Your task to perform on an android device: change notification settings in the gmail app Image 0: 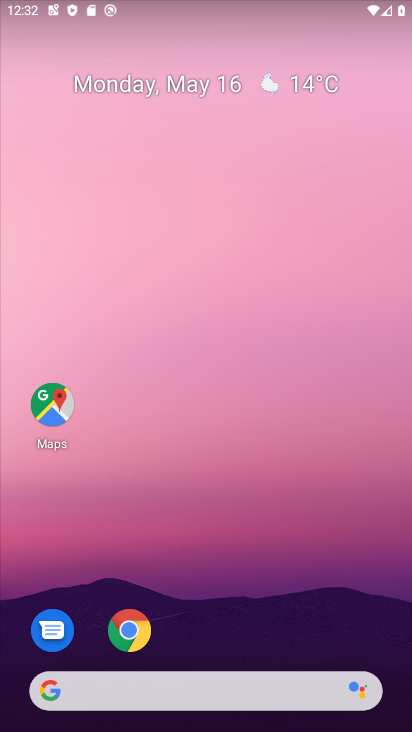
Step 0: drag from (265, 608) to (263, 96)
Your task to perform on an android device: change notification settings in the gmail app Image 1: 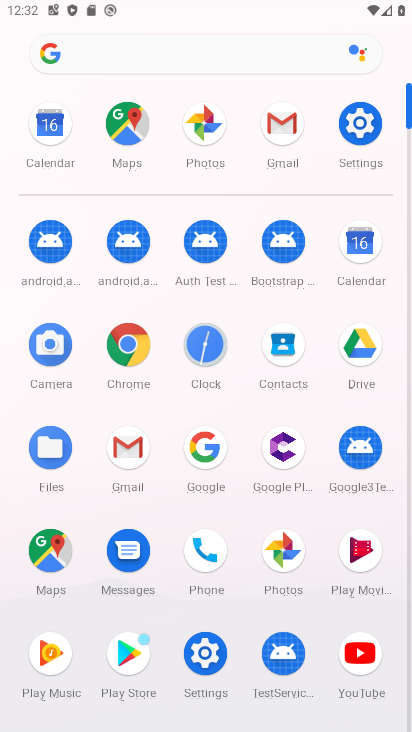
Step 1: click (122, 448)
Your task to perform on an android device: change notification settings in the gmail app Image 2: 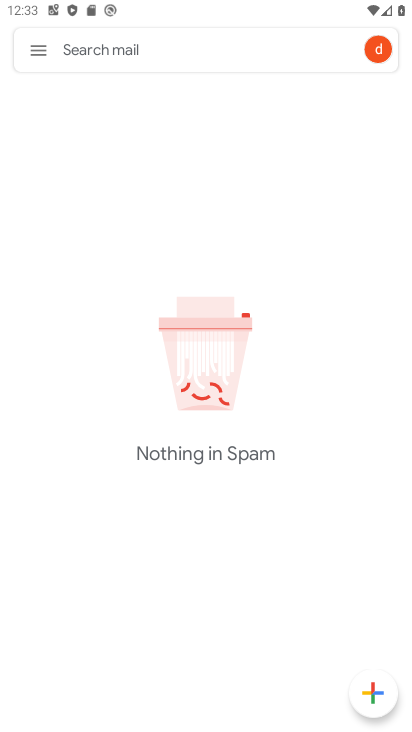
Step 2: click (40, 46)
Your task to perform on an android device: change notification settings in the gmail app Image 3: 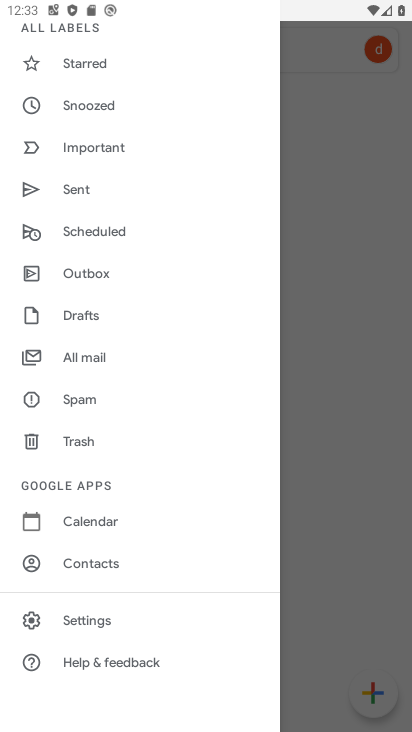
Step 3: click (118, 617)
Your task to perform on an android device: change notification settings in the gmail app Image 4: 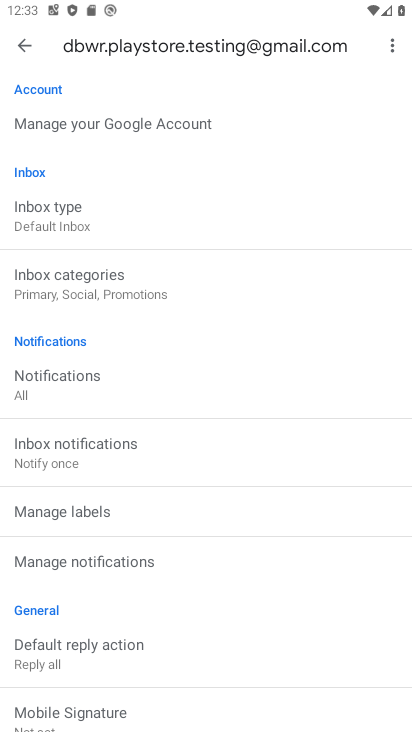
Step 4: click (87, 552)
Your task to perform on an android device: change notification settings in the gmail app Image 5: 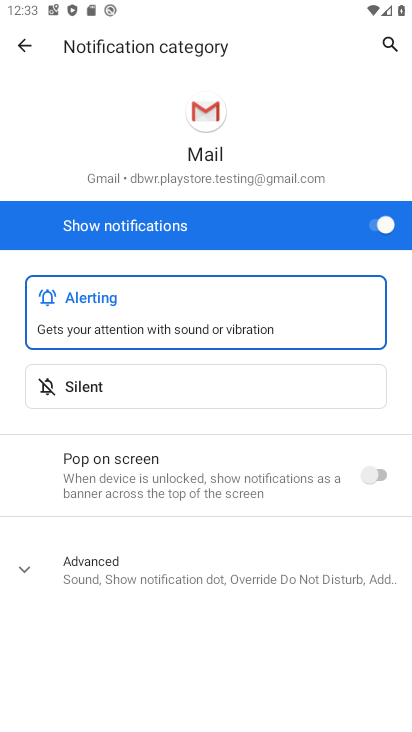
Step 5: click (364, 472)
Your task to perform on an android device: change notification settings in the gmail app Image 6: 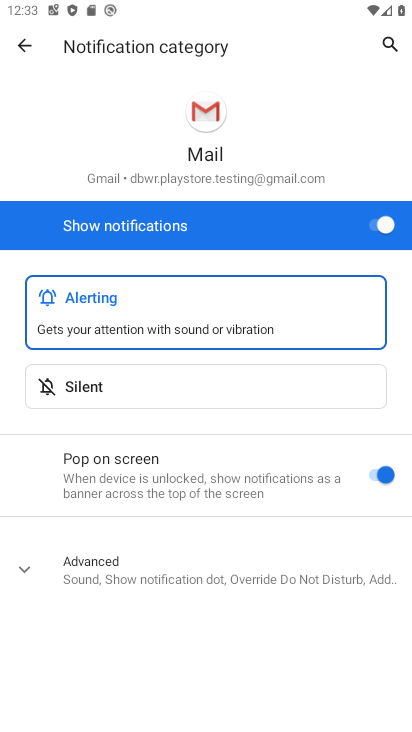
Step 6: task complete